Your task to perform on an android device: turn on location history Image 0: 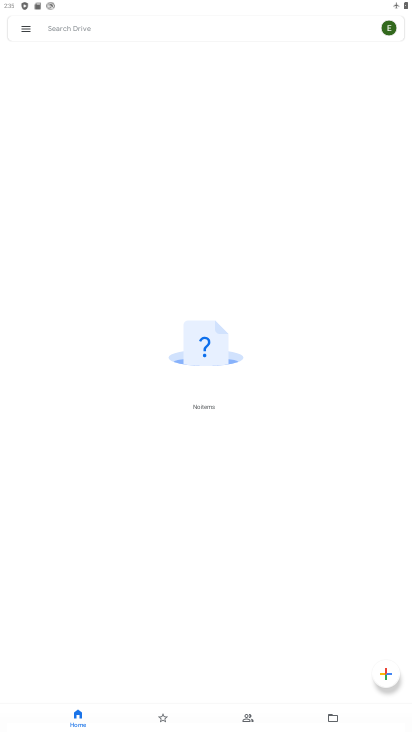
Step 0: press home button
Your task to perform on an android device: turn on location history Image 1: 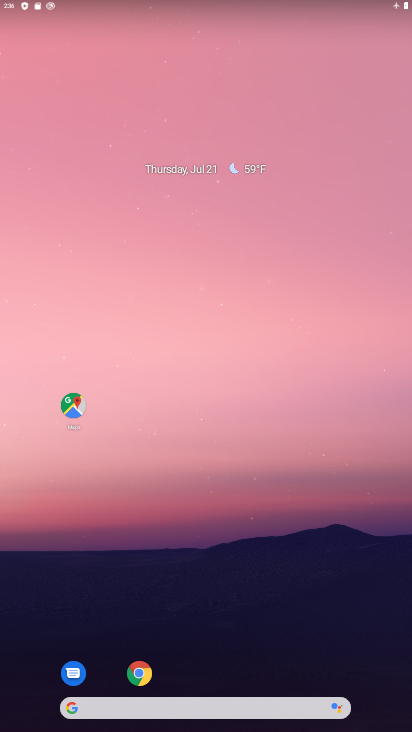
Step 1: click (75, 406)
Your task to perform on an android device: turn on location history Image 2: 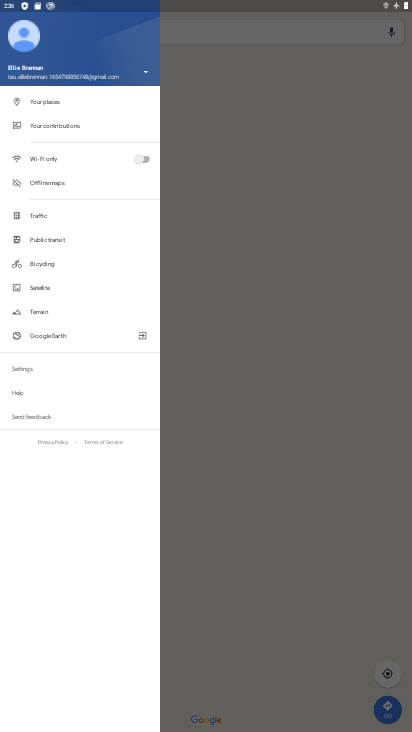
Step 2: click (22, 362)
Your task to perform on an android device: turn on location history Image 3: 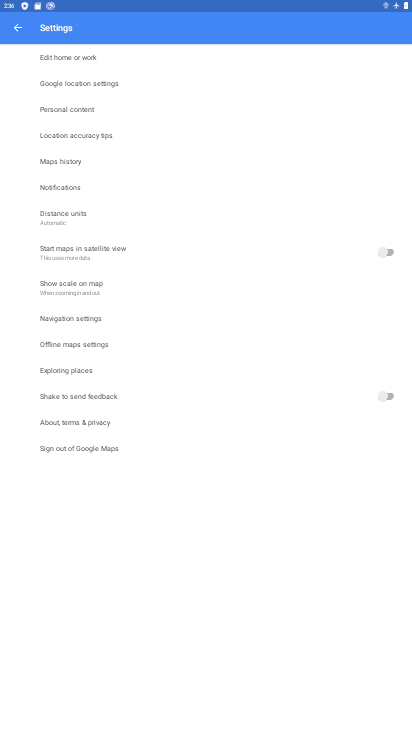
Step 3: click (57, 104)
Your task to perform on an android device: turn on location history Image 4: 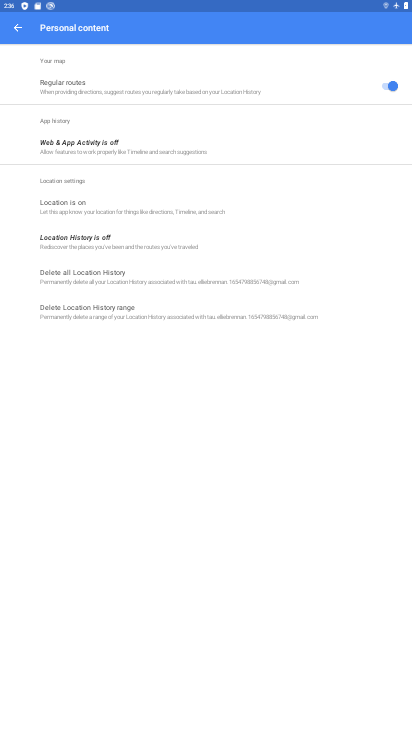
Step 4: click (66, 238)
Your task to perform on an android device: turn on location history Image 5: 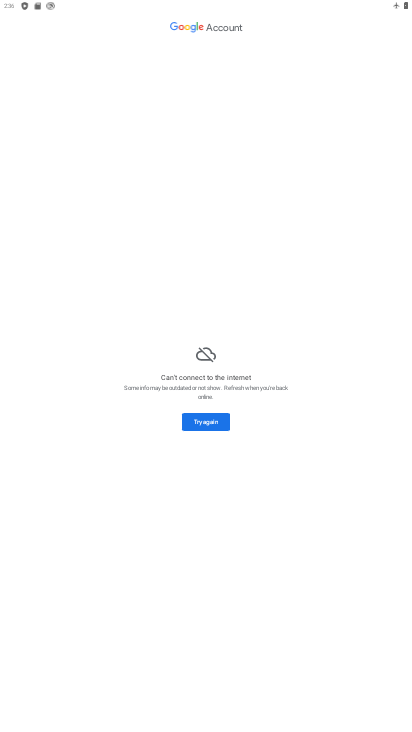
Step 5: click (205, 426)
Your task to perform on an android device: turn on location history Image 6: 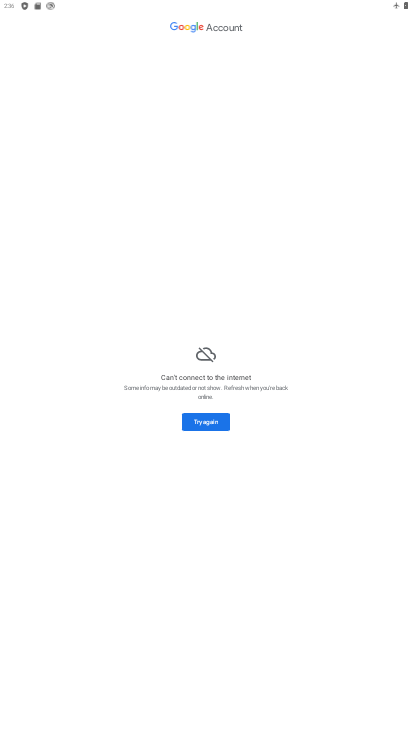
Step 6: click (200, 419)
Your task to perform on an android device: turn on location history Image 7: 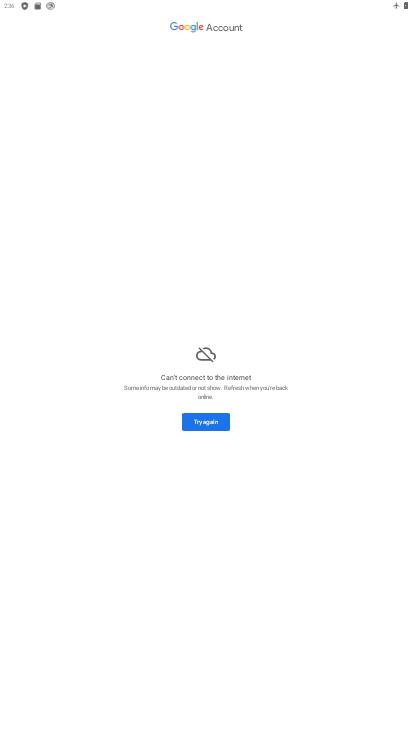
Step 7: task complete